Your task to perform on an android device: Check the weather Image 0: 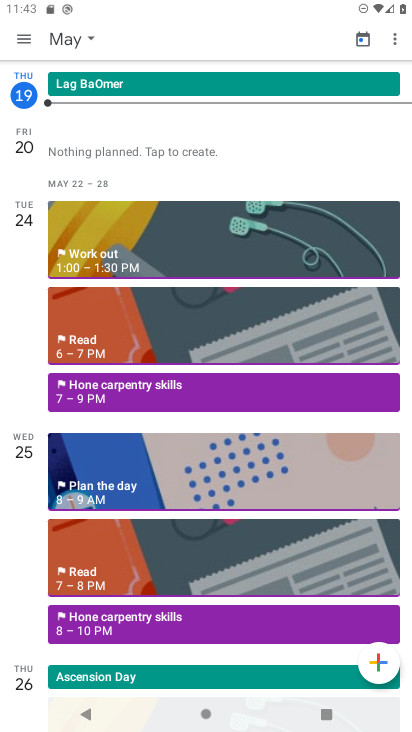
Step 0: press home button
Your task to perform on an android device: Check the weather Image 1: 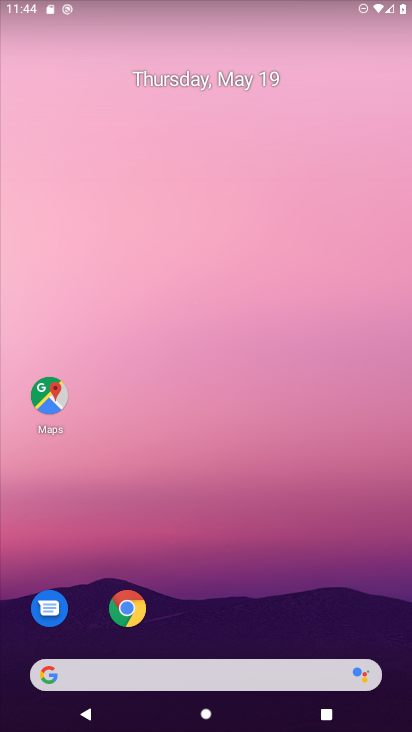
Step 1: click (132, 598)
Your task to perform on an android device: Check the weather Image 2: 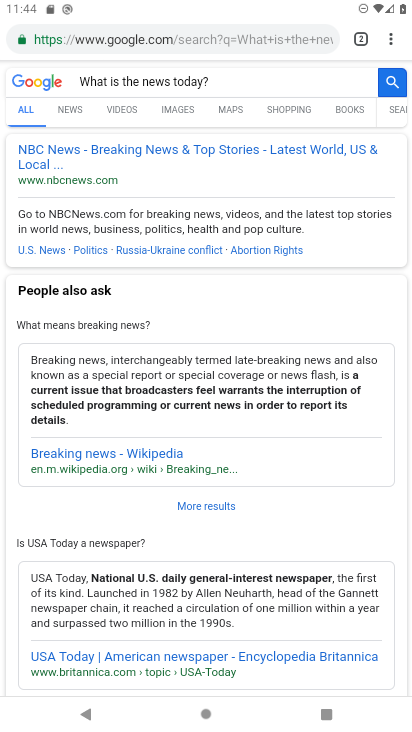
Step 2: click (209, 78)
Your task to perform on an android device: Check the weather Image 3: 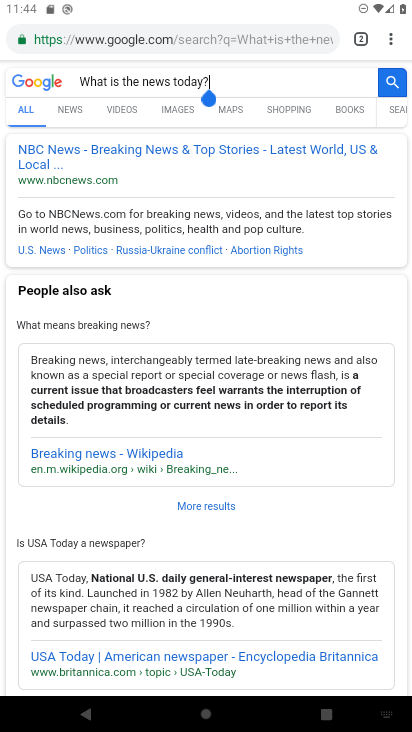
Step 3: click (282, 50)
Your task to perform on an android device: Check the weather Image 4: 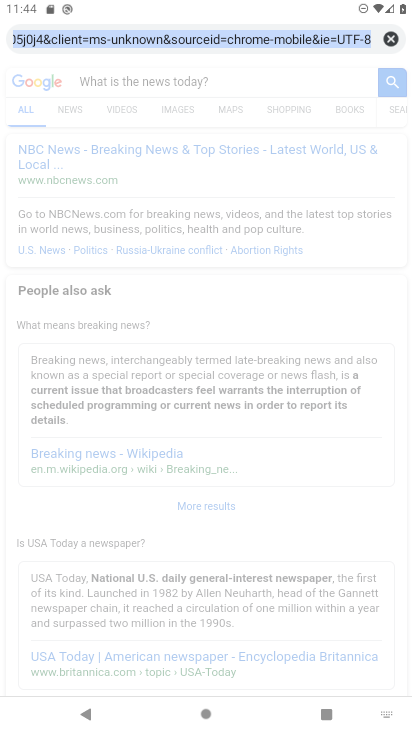
Step 4: click (282, 46)
Your task to perform on an android device: Check the weather Image 5: 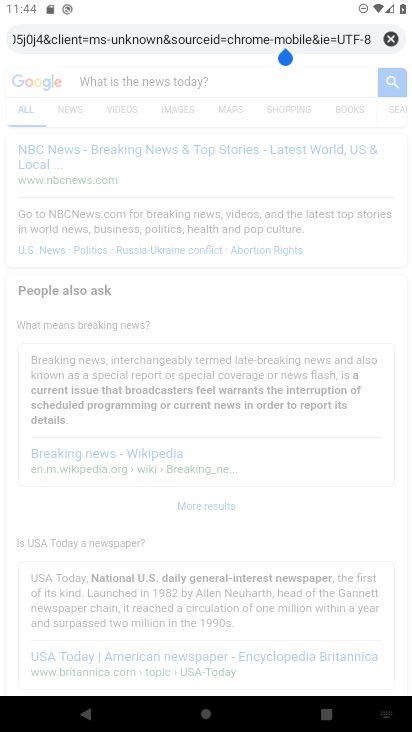
Step 5: click (389, 35)
Your task to perform on an android device: Check the weather Image 6: 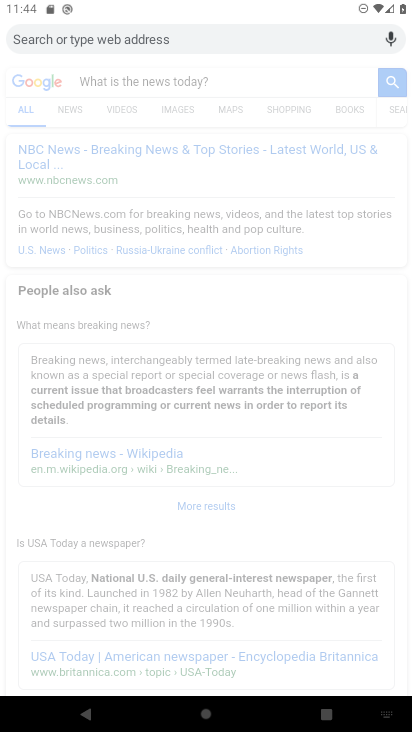
Step 6: type "weather"
Your task to perform on an android device: Check the weather Image 7: 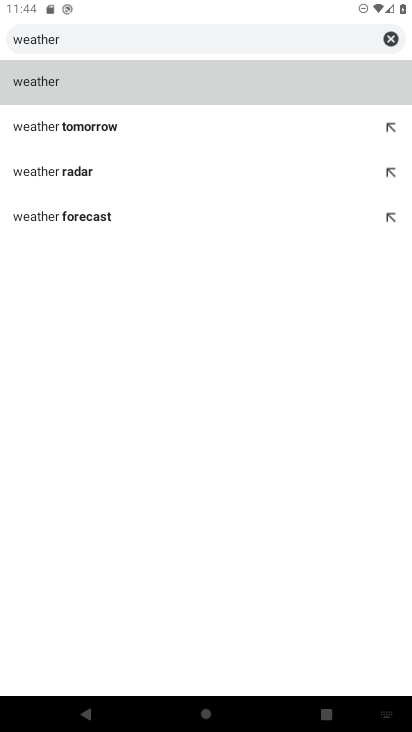
Step 7: click (279, 81)
Your task to perform on an android device: Check the weather Image 8: 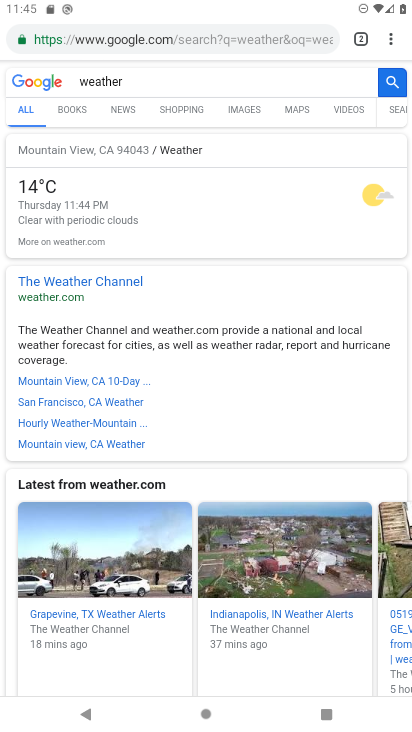
Step 8: task complete